Your task to perform on an android device: What's the weather going to be tomorrow? Image 0: 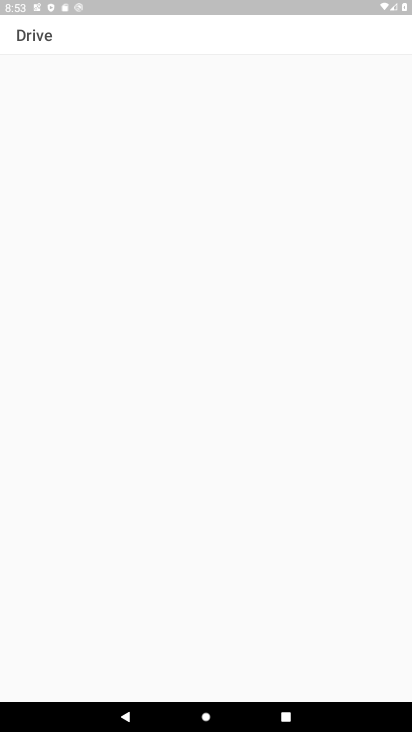
Step 0: press home button
Your task to perform on an android device: What's the weather going to be tomorrow? Image 1: 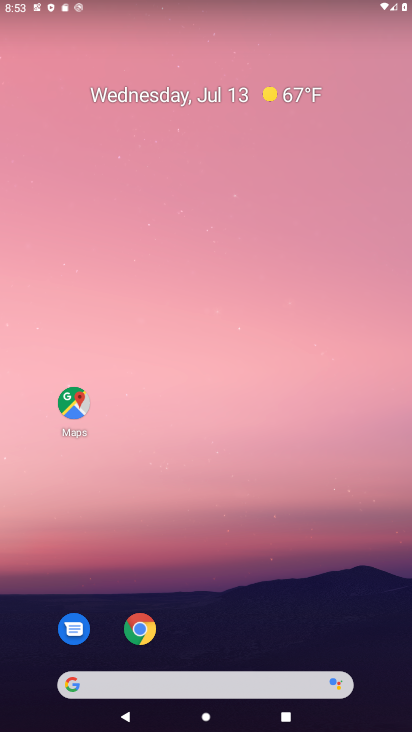
Step 1: click (227, 695)
Your task to perform on an android device: What's the weather going to be tomorrow? Image 2: 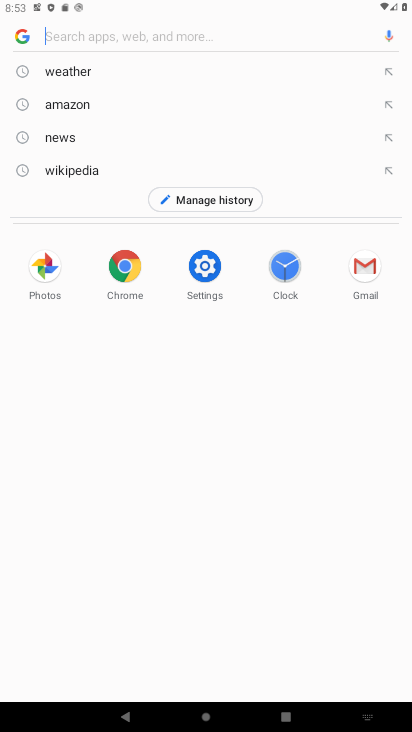
Step 2: click (100, 70)
Your task to perform on an android device: What's the weather going to be tomorrow? Image 3: 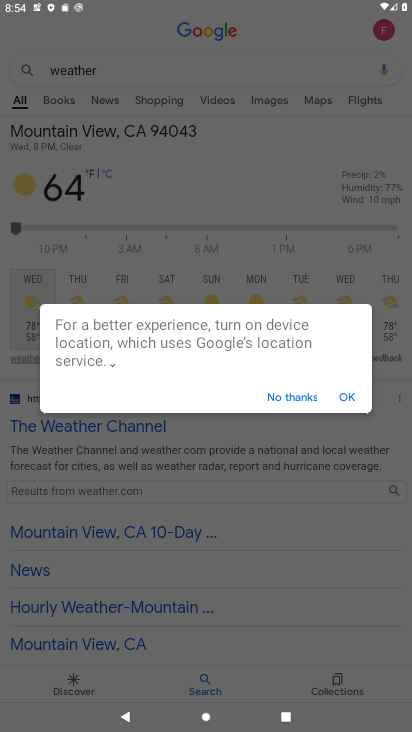
Step 3: click (353, 394)
Your task to perform on an android device: What's the weather going to be tomorrow? Image 4: 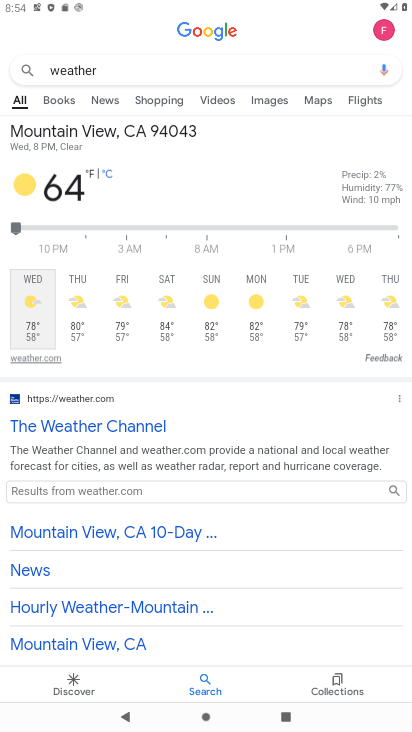
Step 4: click (78, 301)
Your task to perform on an android device: What's the weather going to be tomorrow? Image 5: 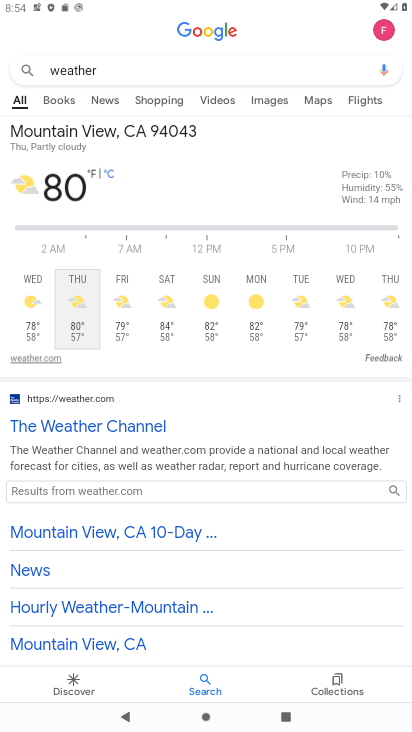
Step 5: task complete